Your task to perform on an android device: check out phone information Image 0: 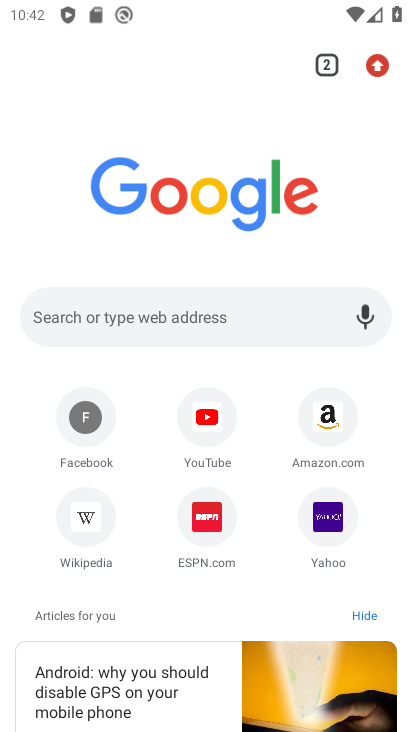
Step 0: press home button
Your task to perform on an android device: check out phone information Image 1: 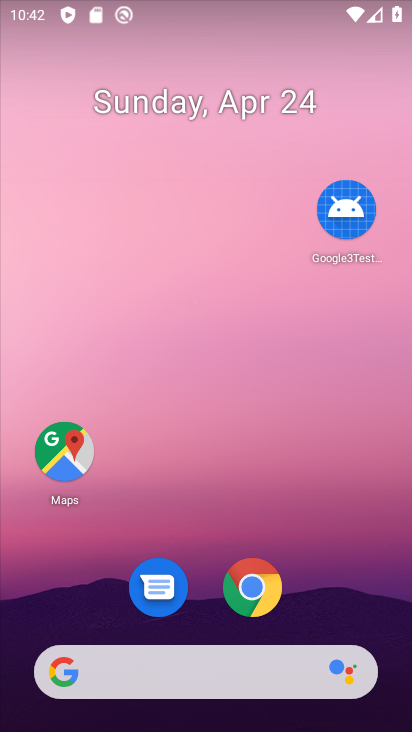
Step 1: drag from (369, 546) to (340, 123)
Your task to perform on an android device: check out phone information Image 2: 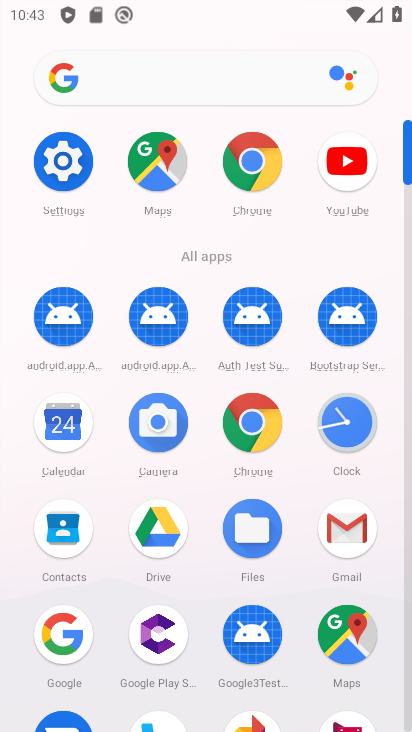
Step 2: drag from (216, 573) to (214, 267)
Your task to perform on an android device: check out phone information Image 3: 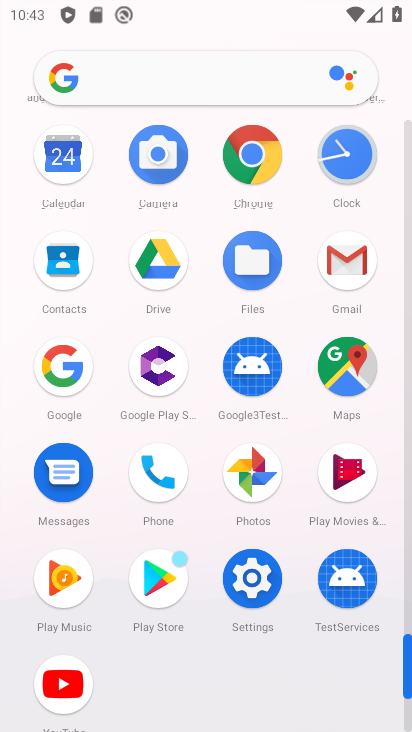
Step 3: click (236, 595)
Your task to perform on an android device: check out phone information Image 4: 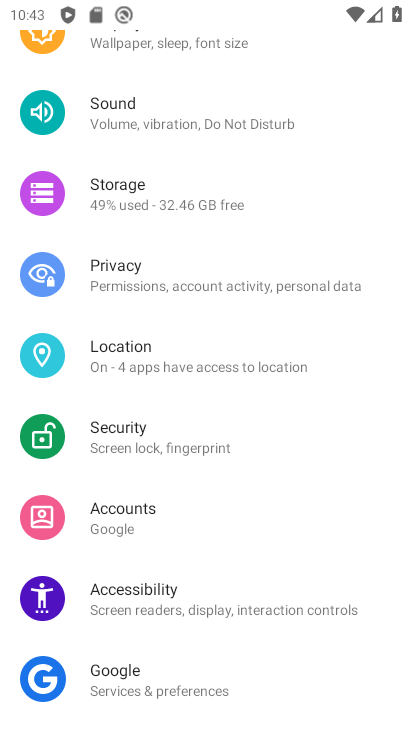
Step 4: drag from (262, 633) to (283, 281)
Your task to perform on an android device: check out phone information Image 5: 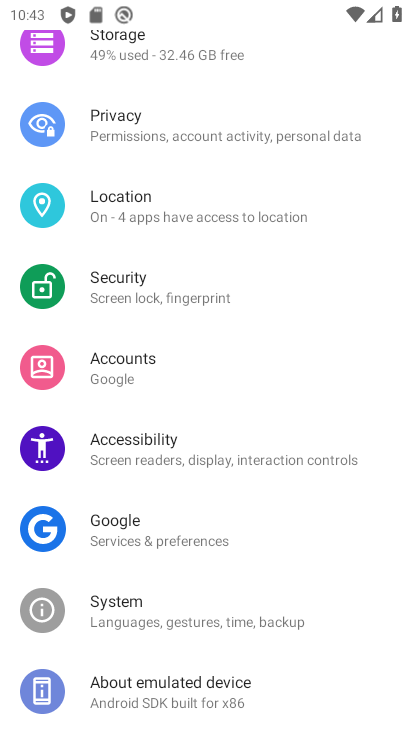
Step 5: click (197, 690)
Your task to perform on an android device: check out phone information Image 6: 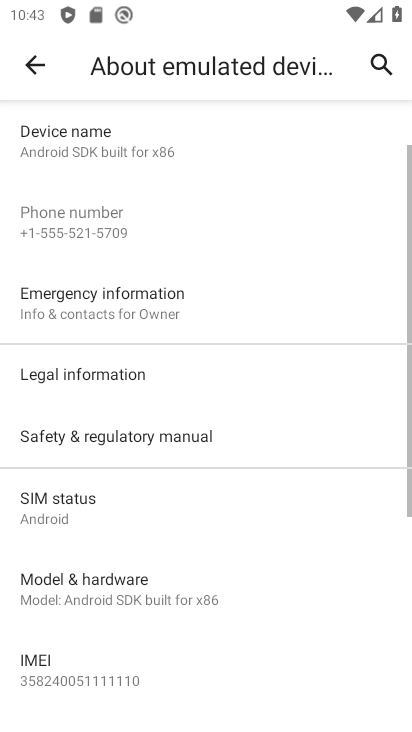
Step 6: task complete